Your task to perform on an android device: Show me the alarms in the clock app Image 0: 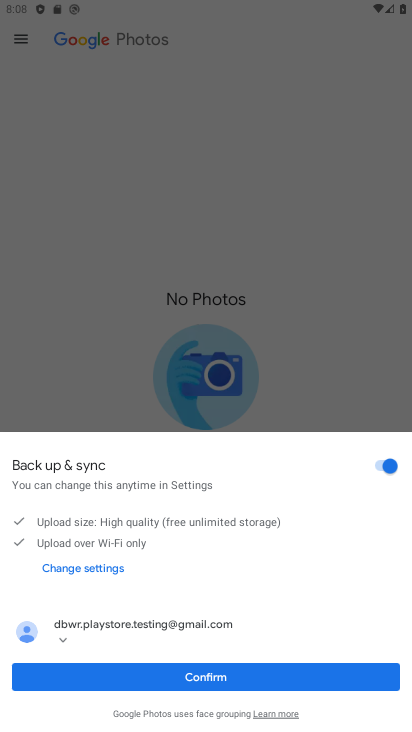
Step 0: task complete